Your task to perform on an android device: Open maps Image 0: 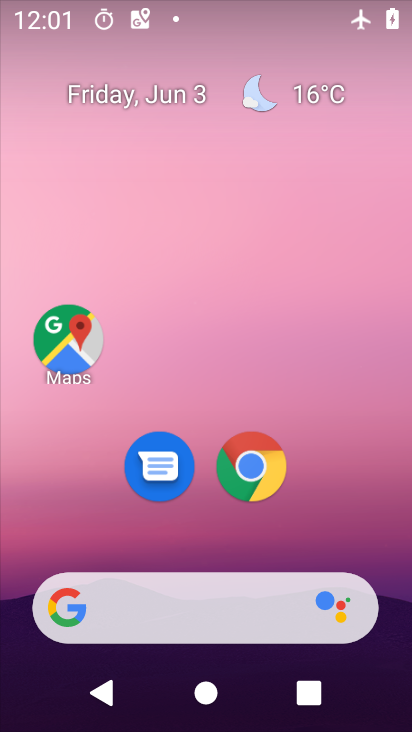
Step 0: click (84, 335)
Your task to perform on an android device: Open maps Image 1: 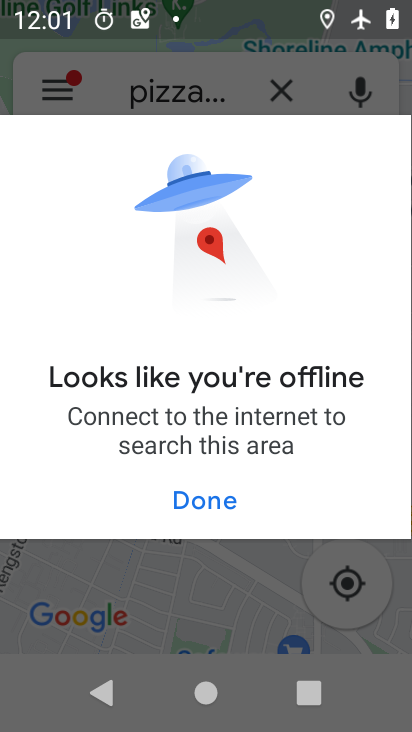
Step 1: task complete